Your task to perform on an android device: turn on showing notifications on the lock screen Image 0: 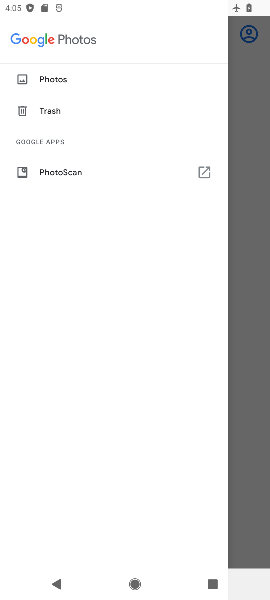
Step 0: press home button
Your task to perform on an android device: turn on showing notifications on the lock screen Image 1: 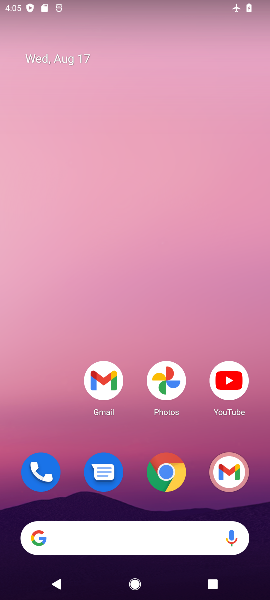
Step 1: drag from (126, 439) to (94, 148)
Your task to perform on an android device: turn on showing notifications on the lock screen Image 2: 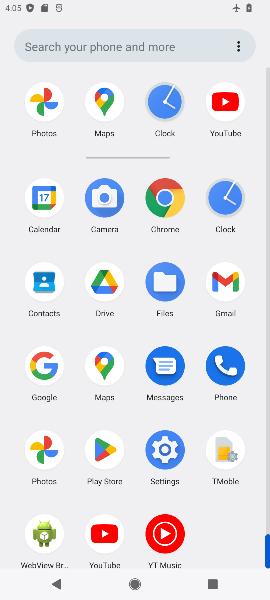
Step 2: click (174, 458)
Your task to perform on an android device: turn on showing notifications on the lock screen Image 3: 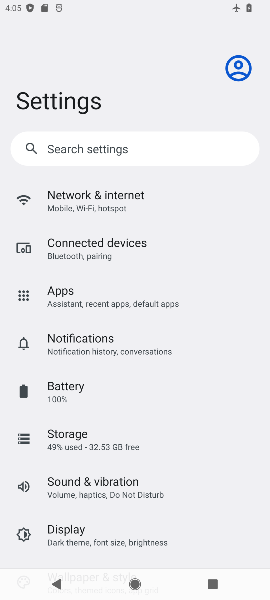
Step 3: click (142, 340)
Your task to perform on an android device: turn on showing notifications on the lock screen Image 4: 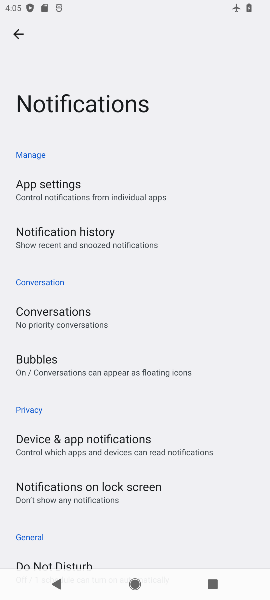
Step 4: click (95, 492)
Your task to perform on an android device: turn on showing notifications on the lock screen Image 5: 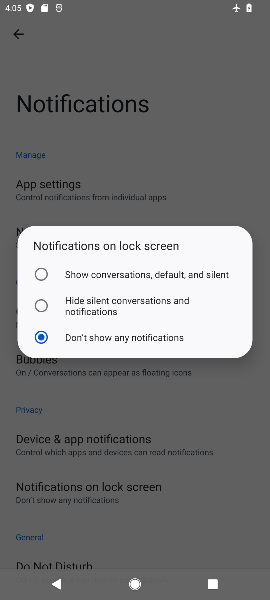
Step 5: click (107, 279)
Your task to perform on an android device: turn on showing notifications on the lock screen Image 6: 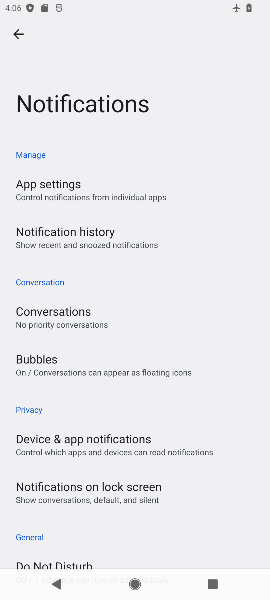
Step 6: task complete